Your task to perform on an android device: What's the weather going to be this weekend? Image 0: 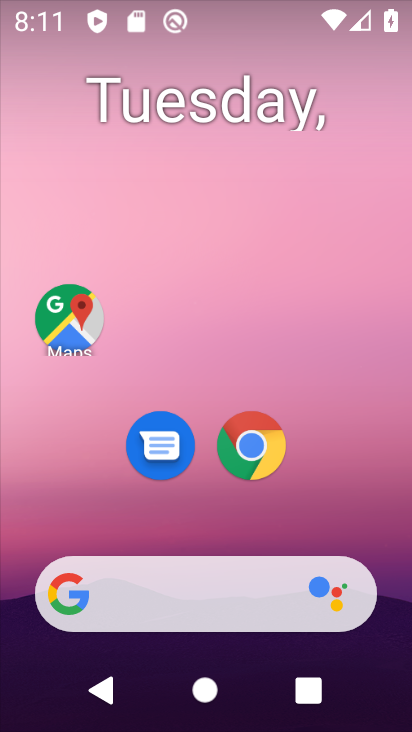
Step 0: drag from (276, 98) to (279, 62)
Your task to perform on an android device: What's the weather going to be this weekend? Image 1: 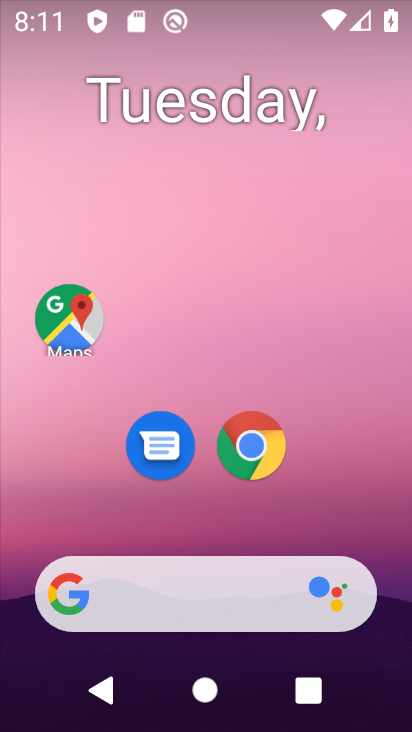
Step 1: drag from (196, 585) to (270, 74)
Your task to perform on an android device: What's the weather going to be this weekend? Image 2: 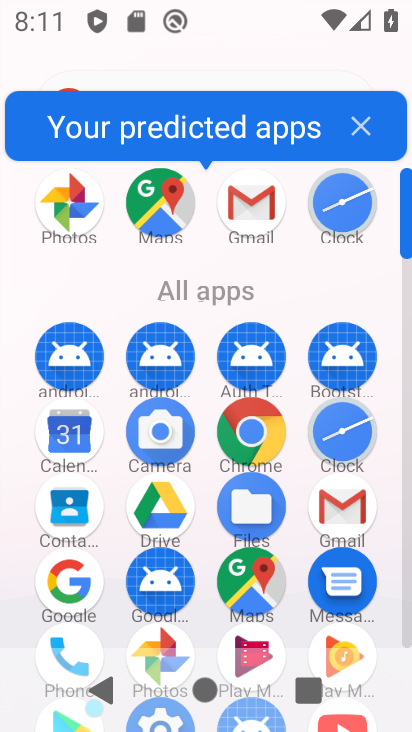
Step 2: click (56, 577)
Your task to perform on an android device: What's the weather going to be this weekend? Image 3: 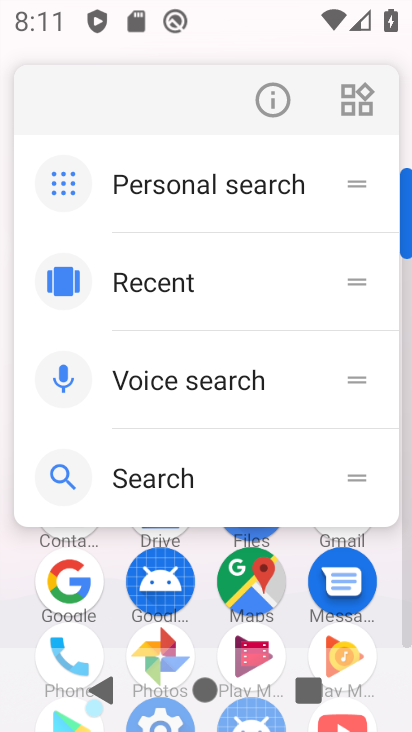
Step 3: click (62, 584)
Your task to perform on an android device: What's the weather going to be this weekend? Image 4: 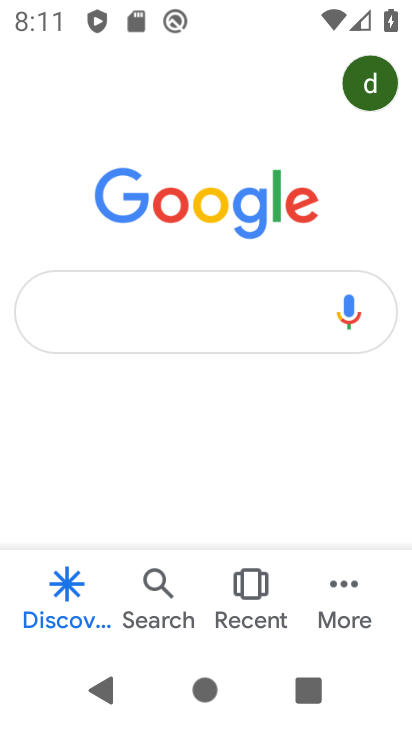
Step 4: click (145, 326)
Your task to perform on an android device: What's the weather going to be this weekend? Image 5: 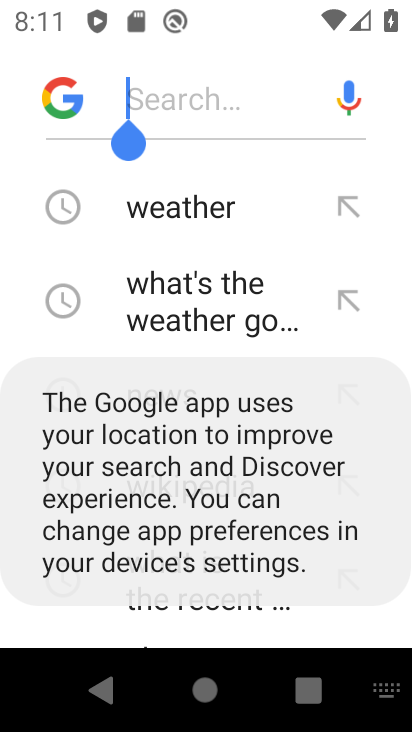
Step 5: click (253, 297)
Your task to perform on an android device: What's the weather going to be this weekend? Image 6: 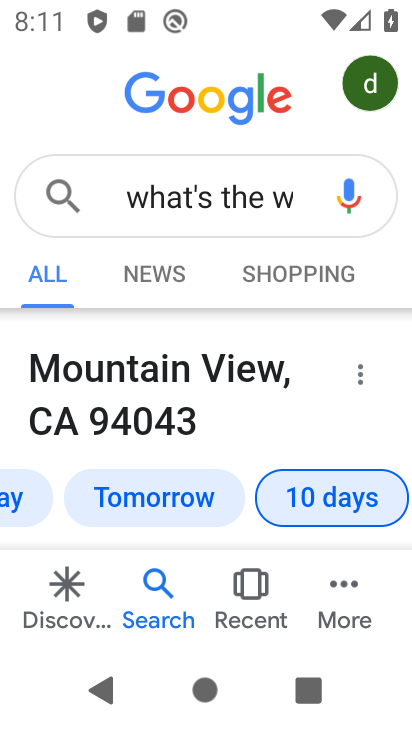
Step 6: task complete